Your task to perform on an android device: Do I have any events today? Image 0: 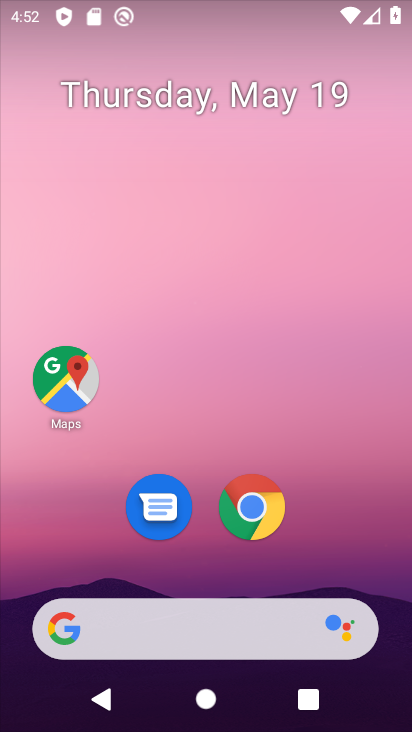
Step 0: drag from (289, 591) to (379, 322)
Your task to perform on an android device: Do I have any events today? Image 1: 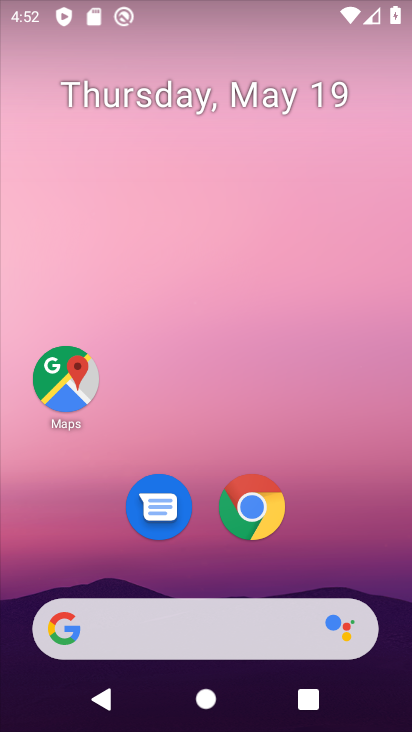
Step 1: drag from (300, 596) to (352, 128)
Your task to perform on an android device: Do I have any events today? Image 2: 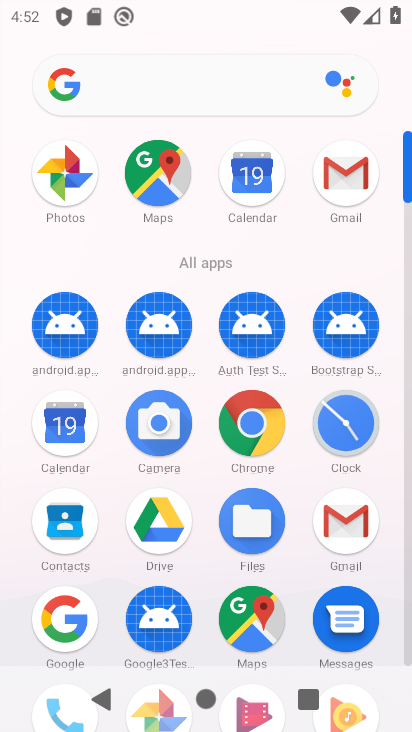
Step 2: click (73, 418)
Your task to perform on an android device: Do I have any events today? Image 3: 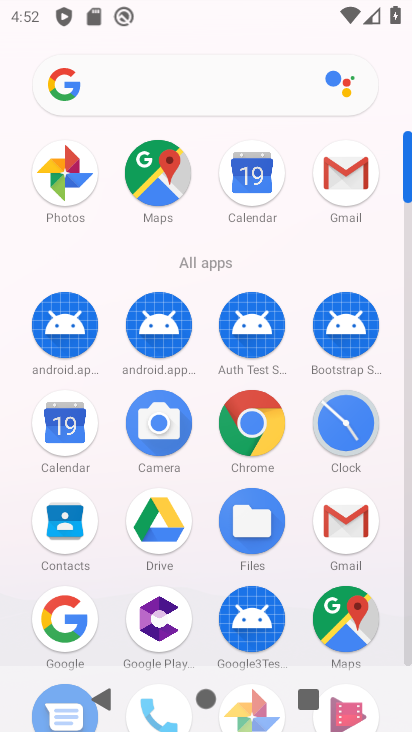
Step 3: click (73, 418)
Your task to perform on an android device: Do I have any events today? Image 4: 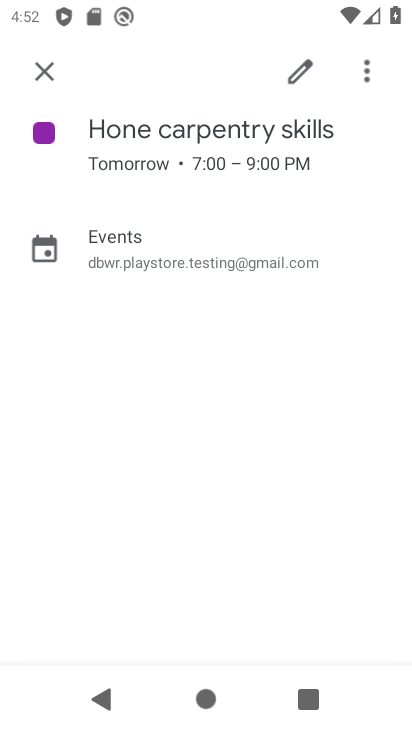
Step 4: click (49, 74)
Your task to perform on an android device: Do I have any events today? Image 5: 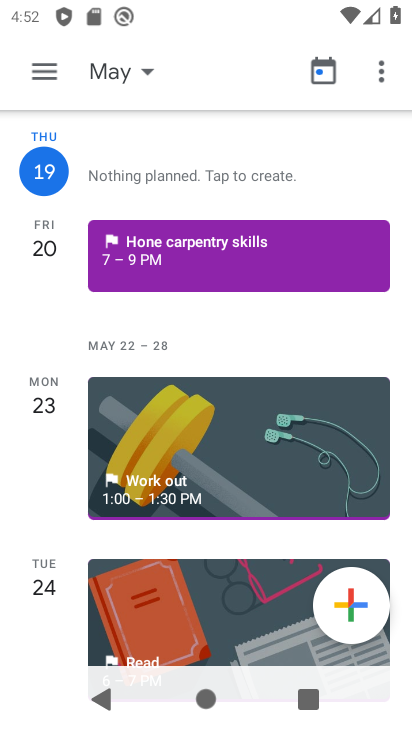
Step 5: click (189, 245)
Your task to perform on an android device: Do I have any events today? Image 6: 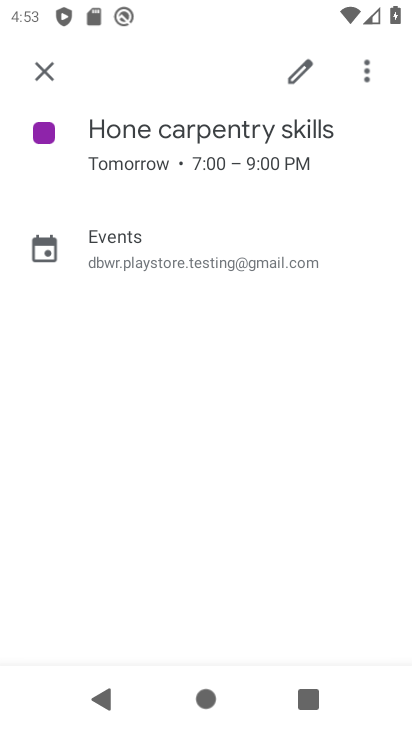
Step 6: click (35, 67)
Your task to perform on an android device: Do I have any events today? Image 7: 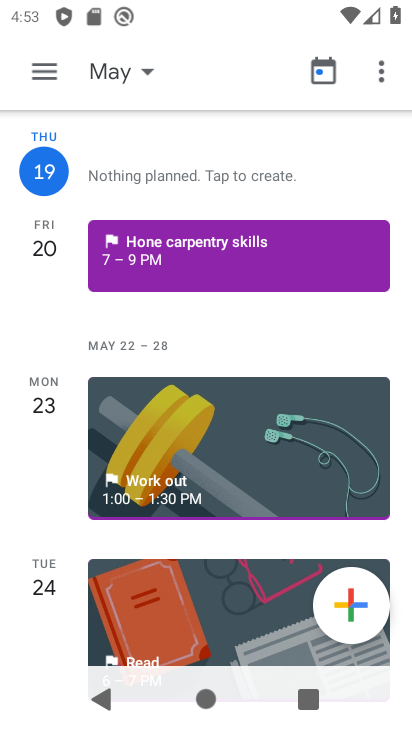
Step 7: click (122, 174)
Your task to perform on an android device: Do I have any events today? Image 8: 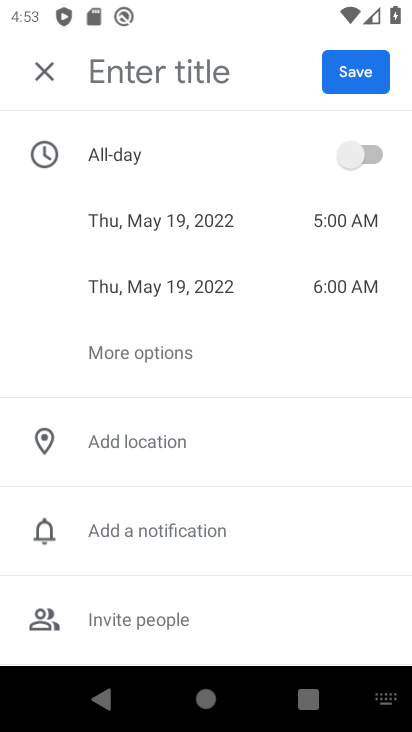
Step 8: task complete